Your task to perform on an android device: Go to settings Image 0: 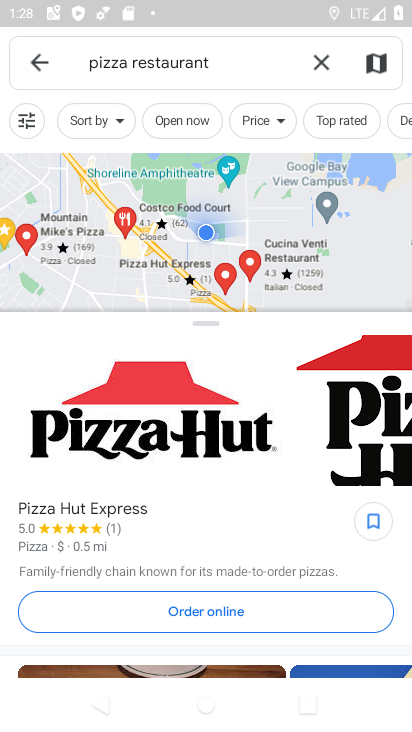
Step 0: press home button
Your task to perform on an android device: Go to settings Image 1: 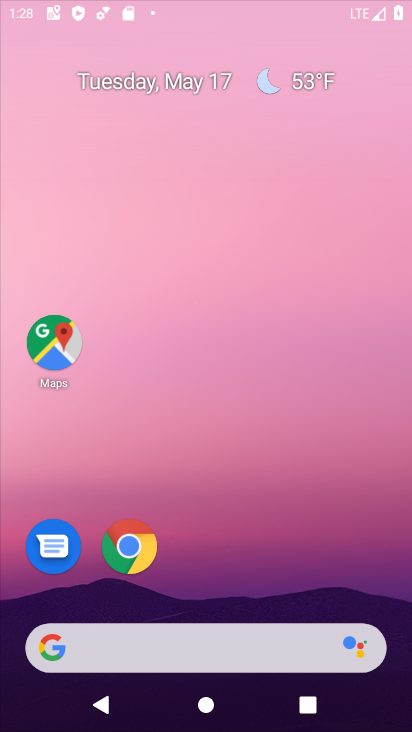
Step 1: drag from (222, 574) to (218, 162)
Your task to perform on an android device: Go to settings Image 2: 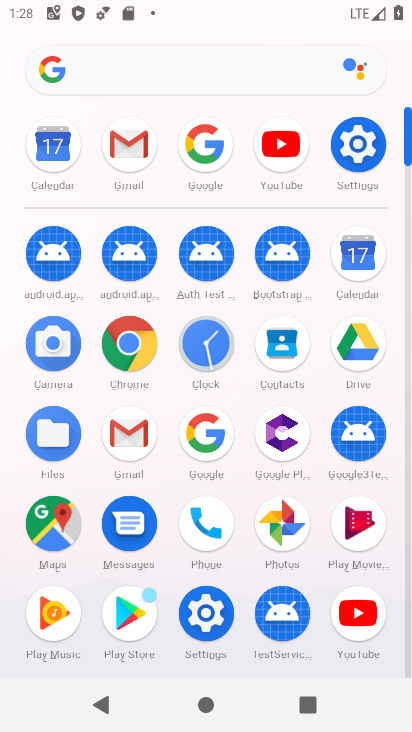
Step 2: click (371, 145)
Your task to perform on an android device: Go to settings Image 3: 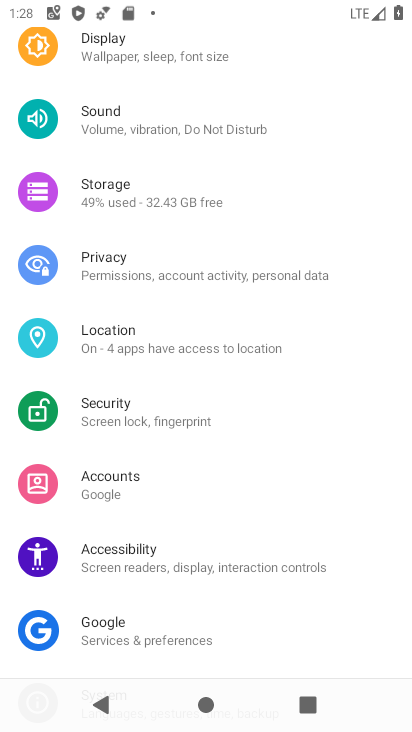
Step 3: task complete